Your task to perform on an android device: open chrome privacy settings Image 0: 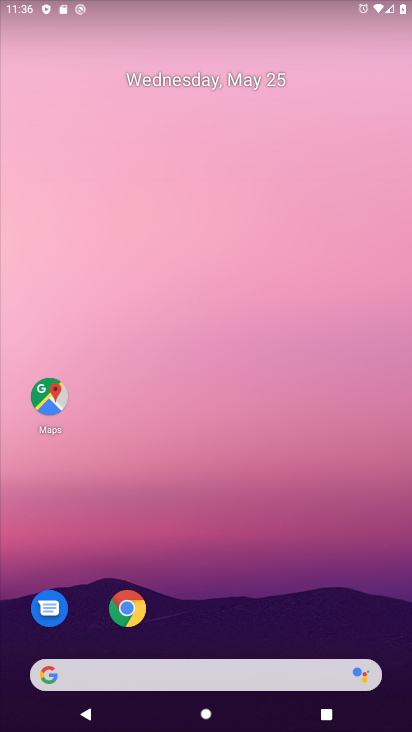
Step 0: drag from (253, 714) to (257, 54)
Your task to perform on an android device: open chrome privacy settings Image 1: 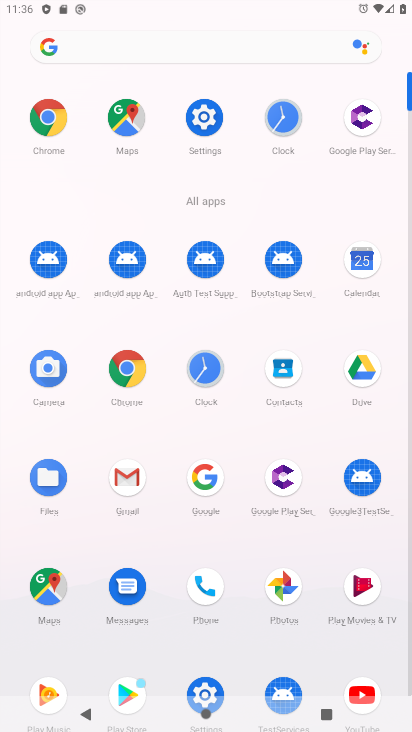
Step 1: click (202, 117)
Your task to perform on an android device: open chrome privacy settings Image 2: 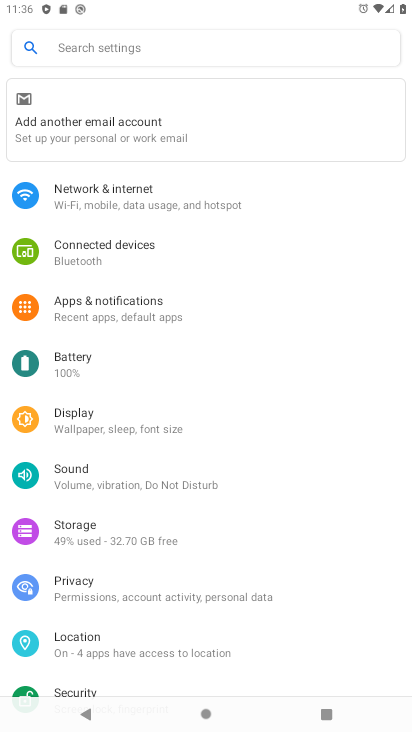
Step 2: click (75, 585)
Your task to perform on an android device: open chrome privacy settings Image 3: 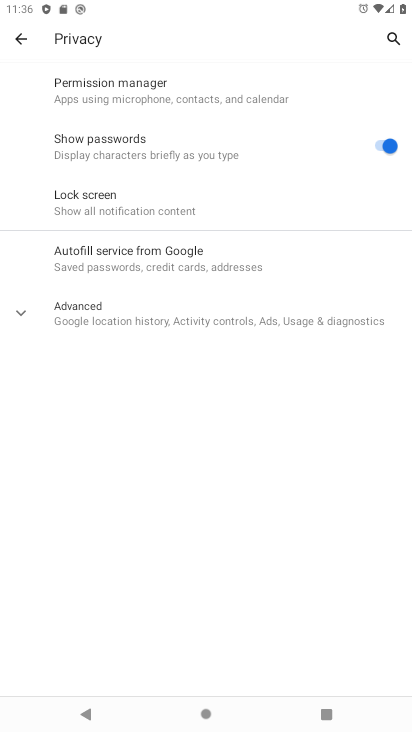
Step 3: task complete